Your task to perform on an android device: How much does a 2 bedroom apartment rent for in Boston? Image 0: 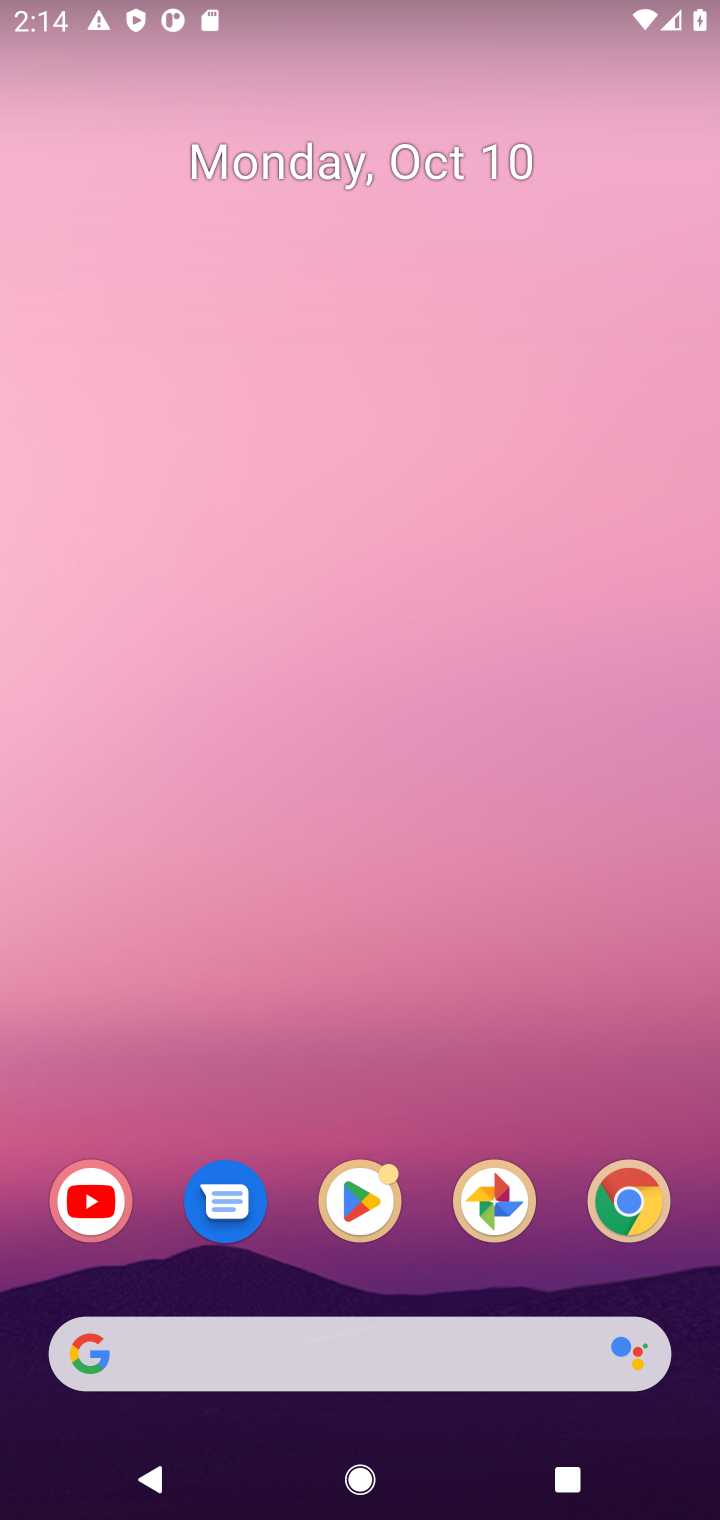
Step 0: click (356, 1325)
Your task to perform on an android device: How much does a 2 bedroom apartment rent for in Boston? Image 1: 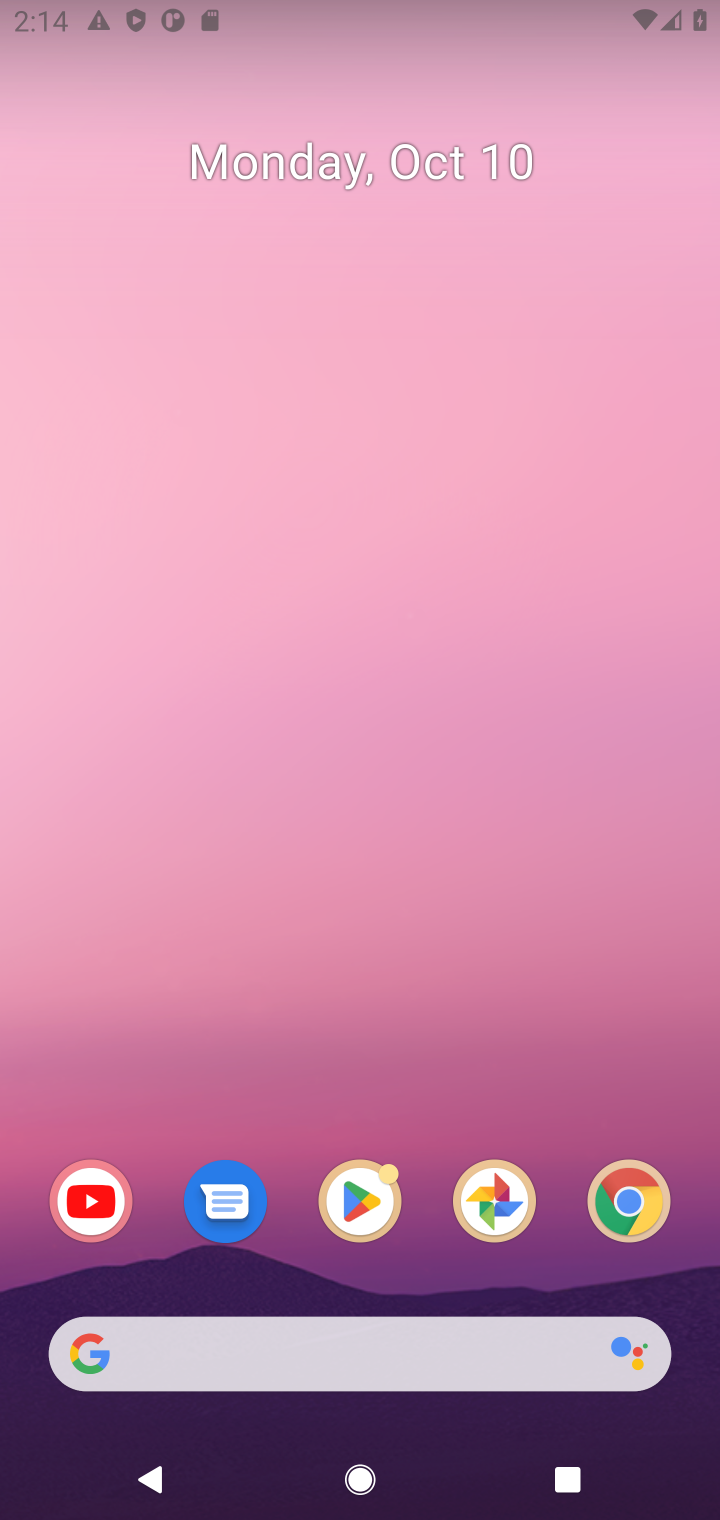
Step 1: click (337, 1356)
Your task to perform on an android device: How much does a 2 bedroom apartment rent for in Boston? Image 2: 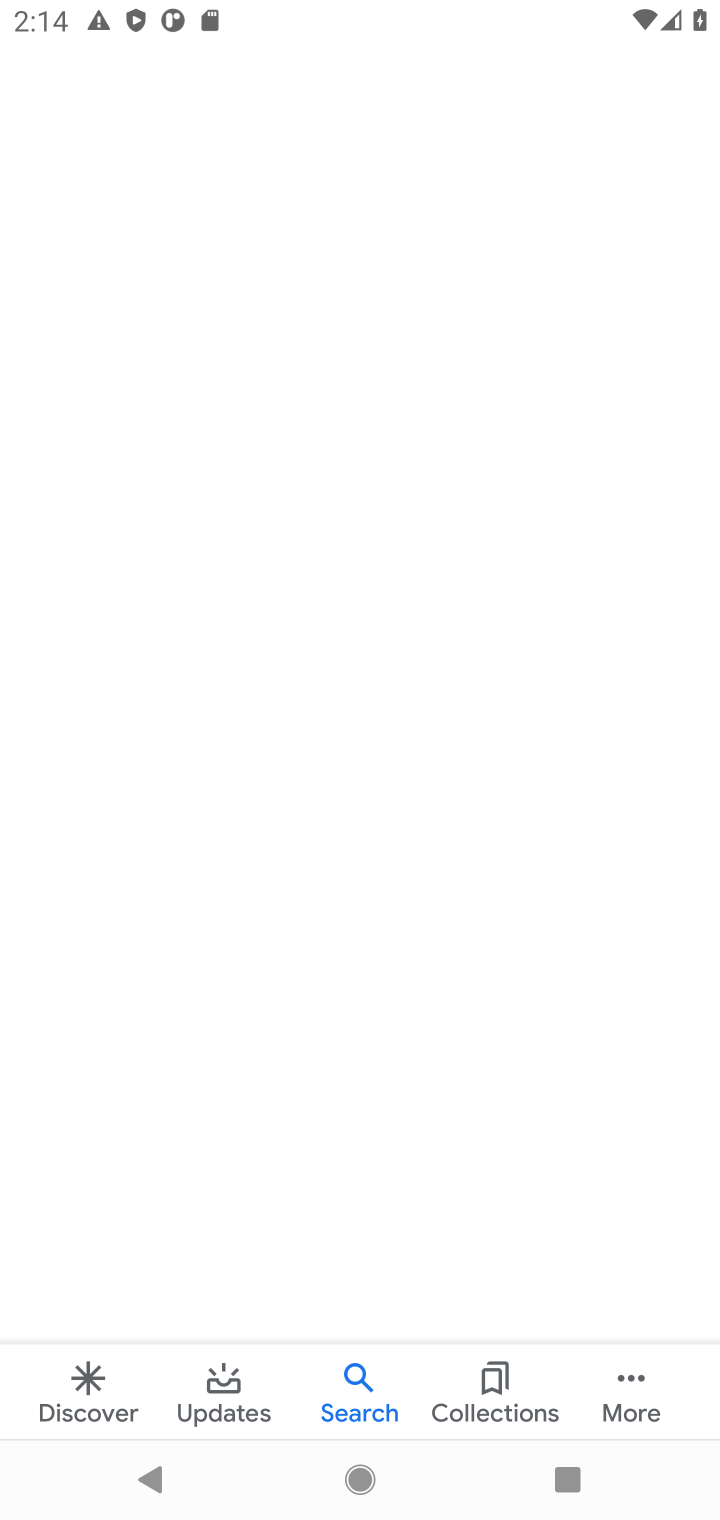
Step 2: type " bedroom apartment rent for in Boston?"
Your task to perform on an android device: How much does a 2 bedroom apartment rent for in Boston? Image 3: 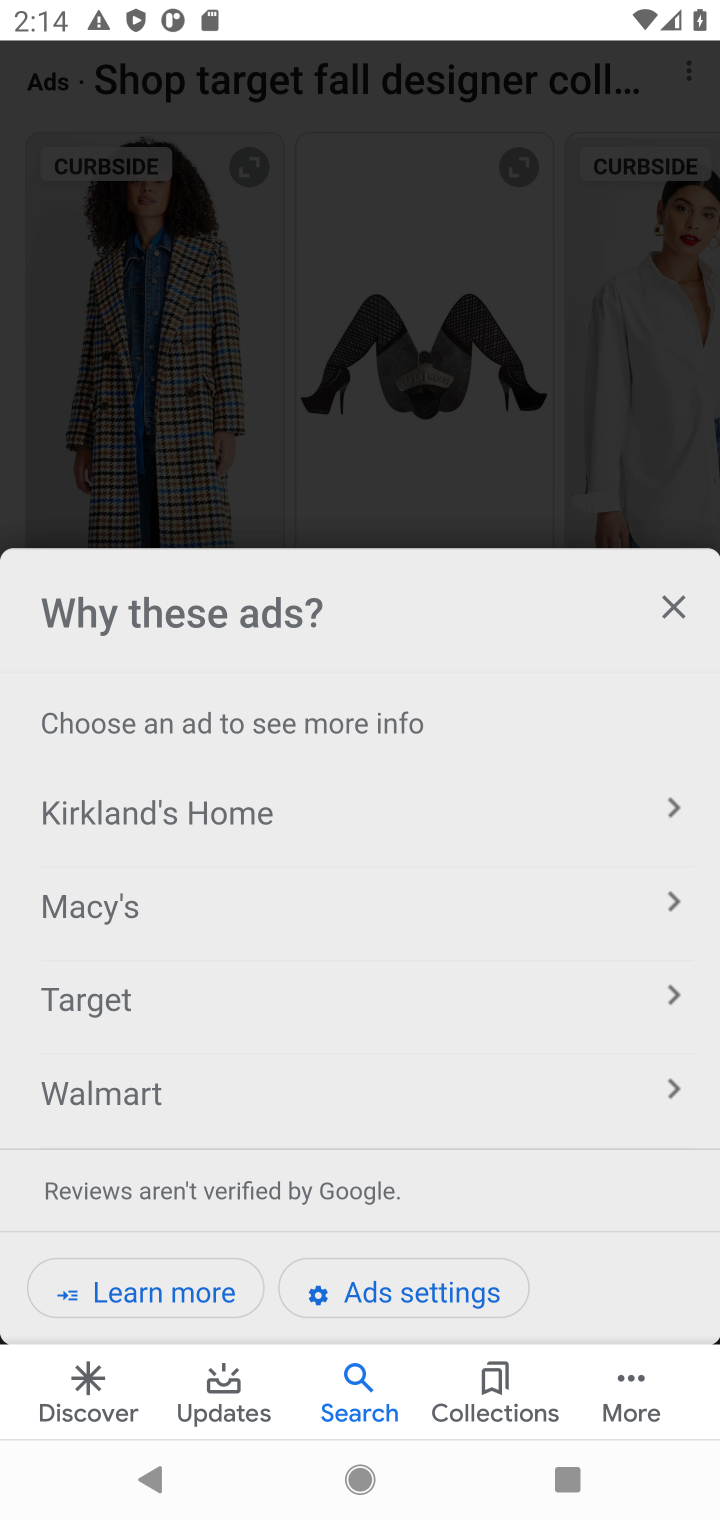
Step 3: press back button
Your task to perform on an android device: How much does a 2 bedroom apartment rent for in Boston? Image 4: 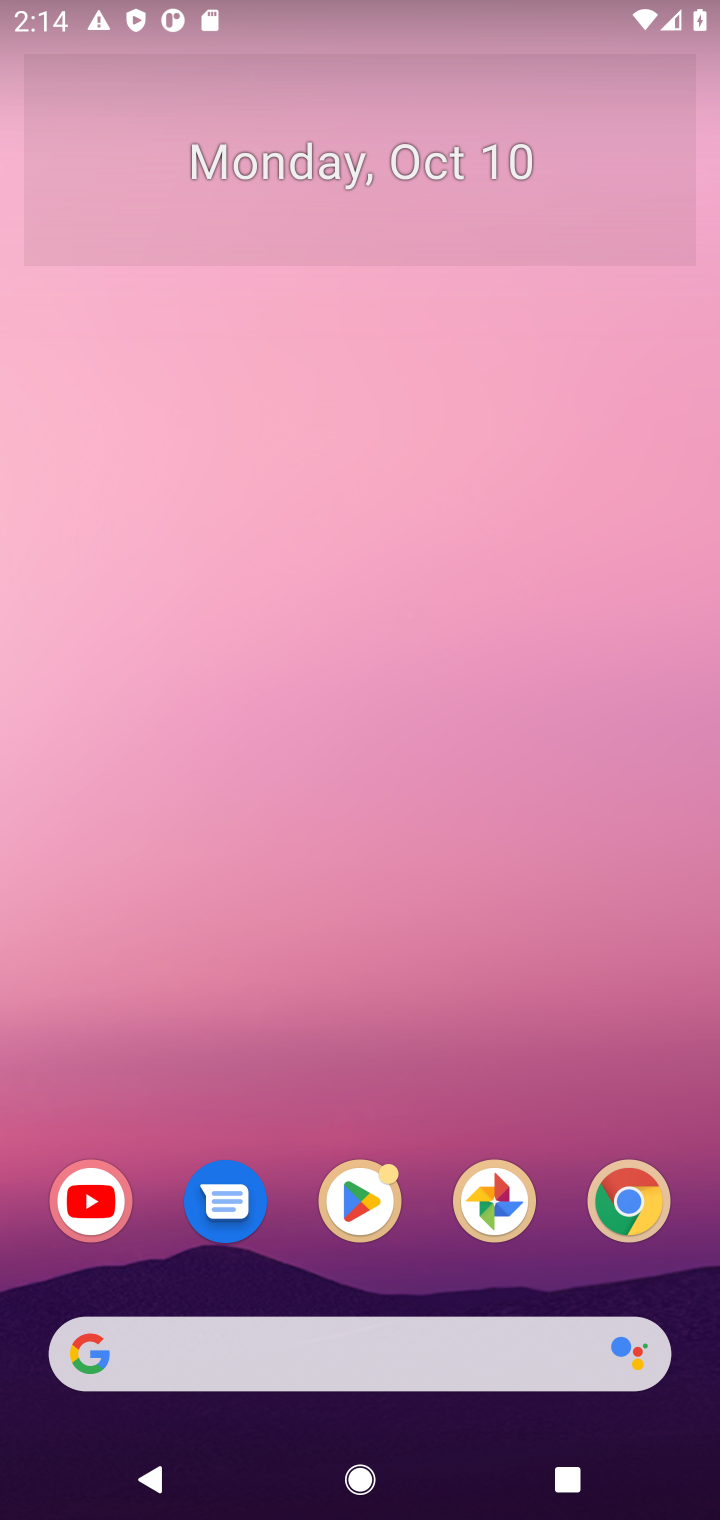
Step 4: click (217, 1348)
Your task to perform on an android device: How much does a 2 bedroom apartment rent for in Boston? Image 5: 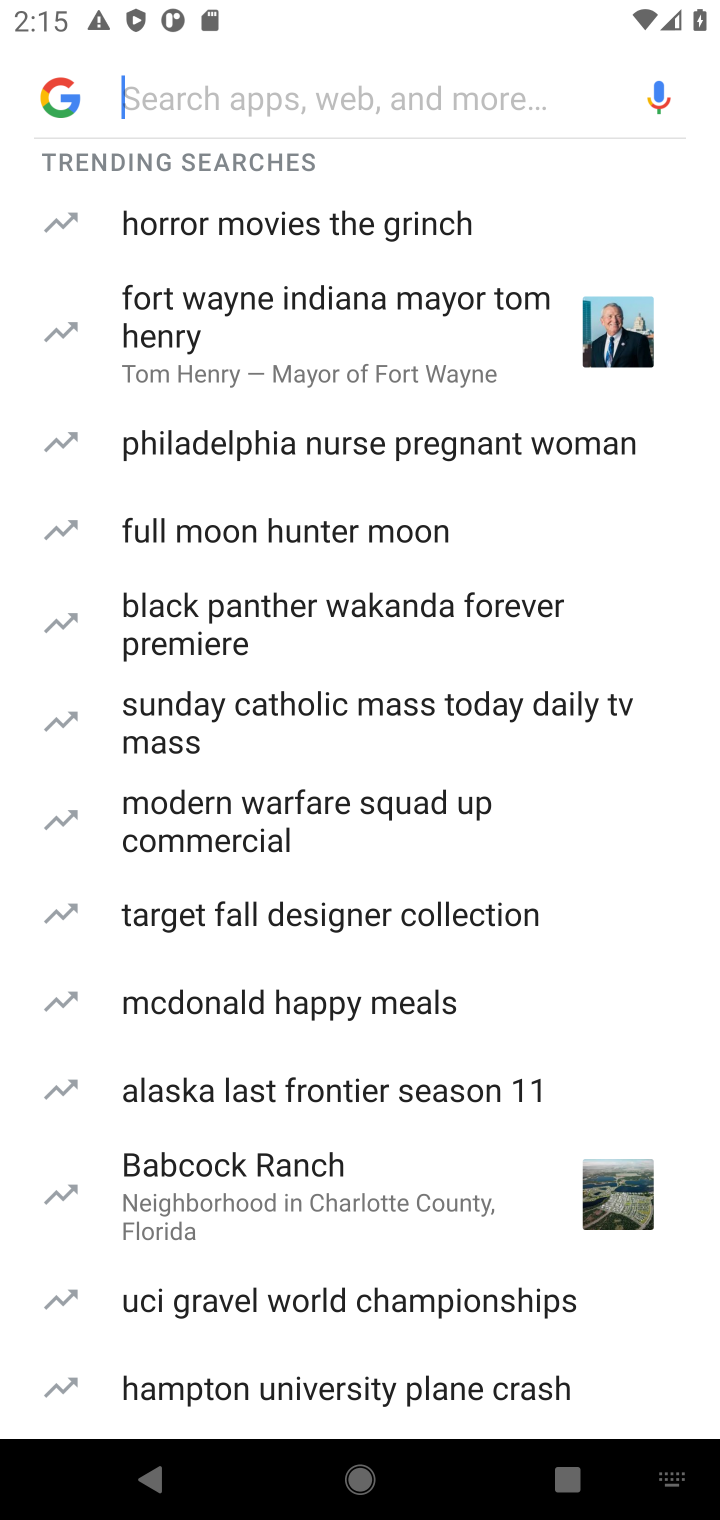
Step 5: type " bedroom apartment rent for in Boston?"
Your task to perform on an android device: How much does a 2 bedroom apartment rent for in Boston? Image 6: 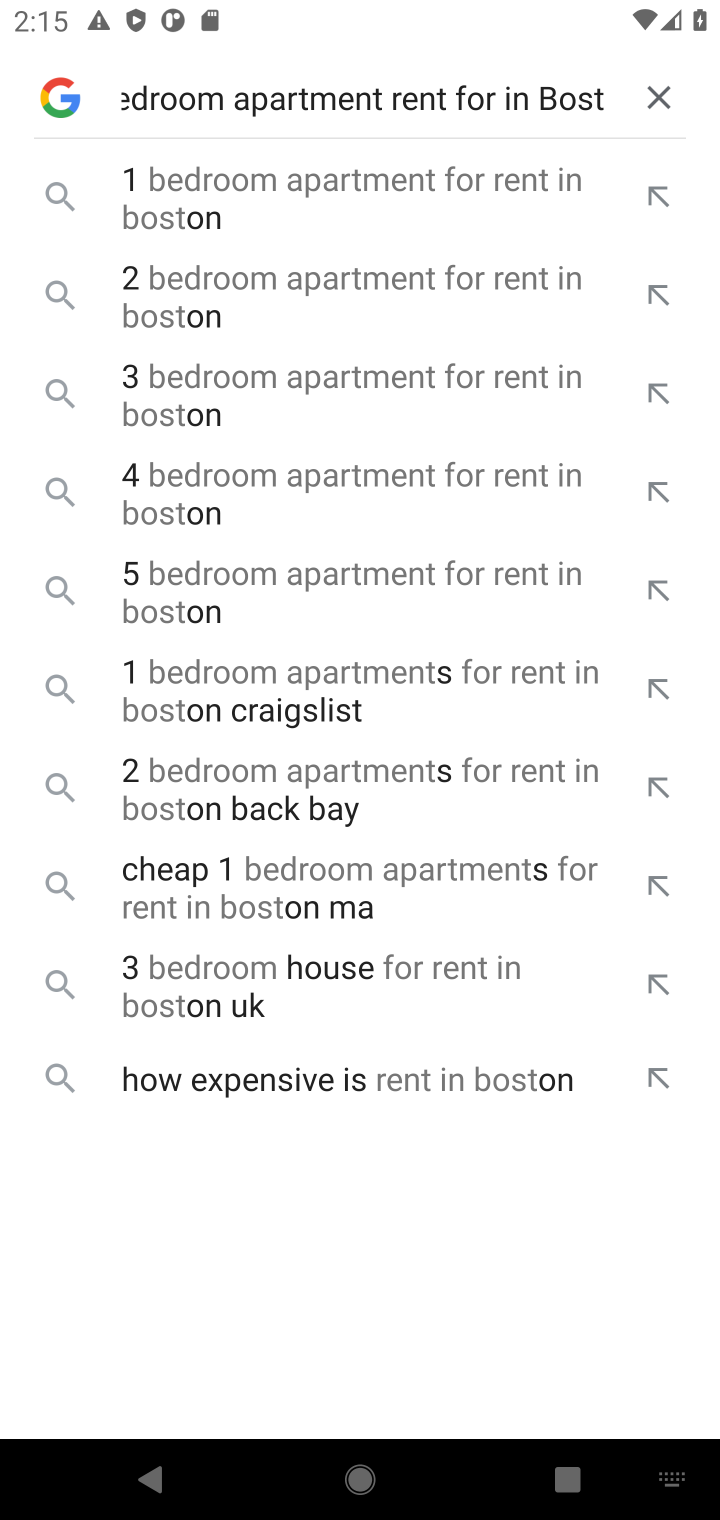
Step 6: type ""
Your task to perform on an android device: How much does a 2 bedroom apartment rent for in Boston? Image 7: 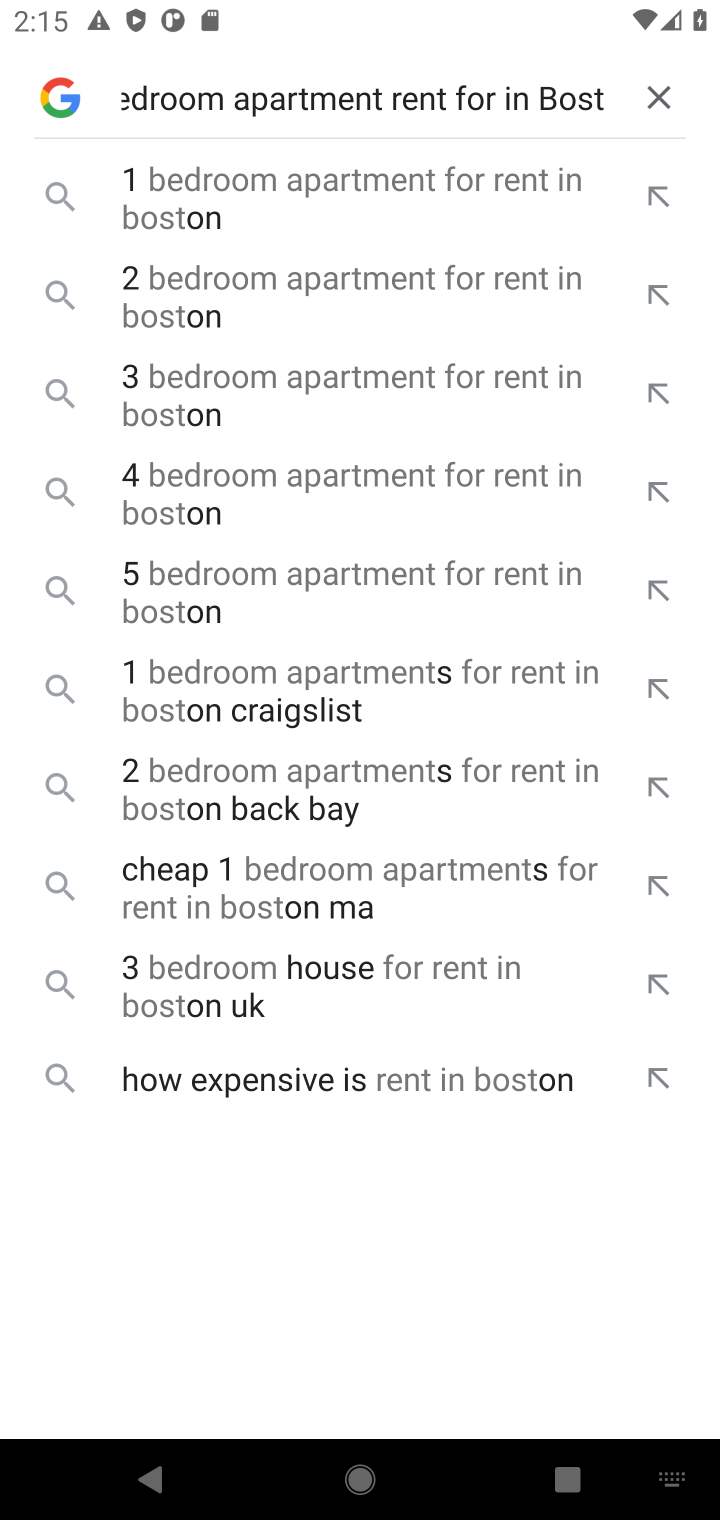
Step 7: press enter
Your task to perform on an android device: How much does a 2 bedroom apartment rent for in Boston? Image 8: 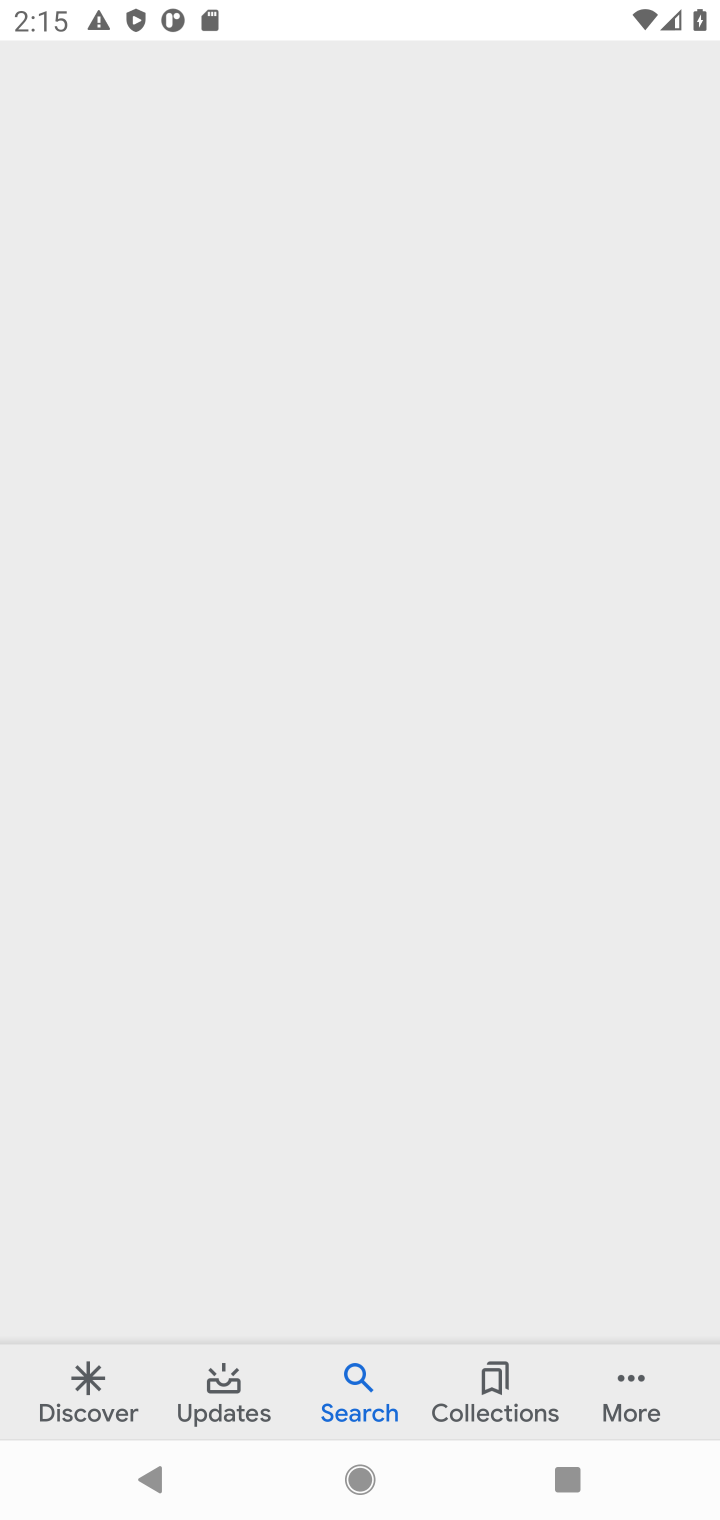
Step 8: click (174, 298)
Your task to perform on an android device: How much does a 2 bedroom apartment rent for in Boston? Image 9: 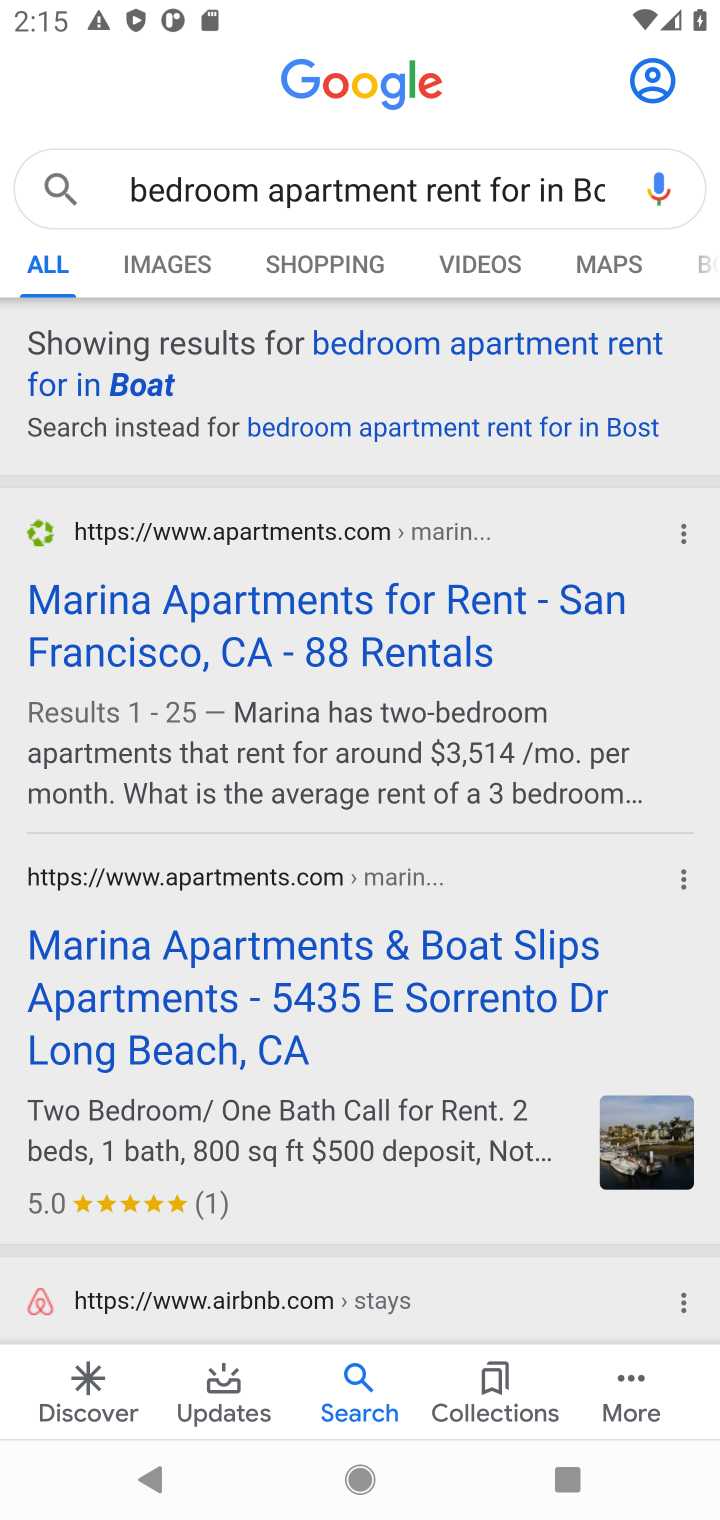
Step 9: click (242, 603)
Your task to perform on an android device: How much does a 2 bedroom apartment rent for in Boston? Image 10: 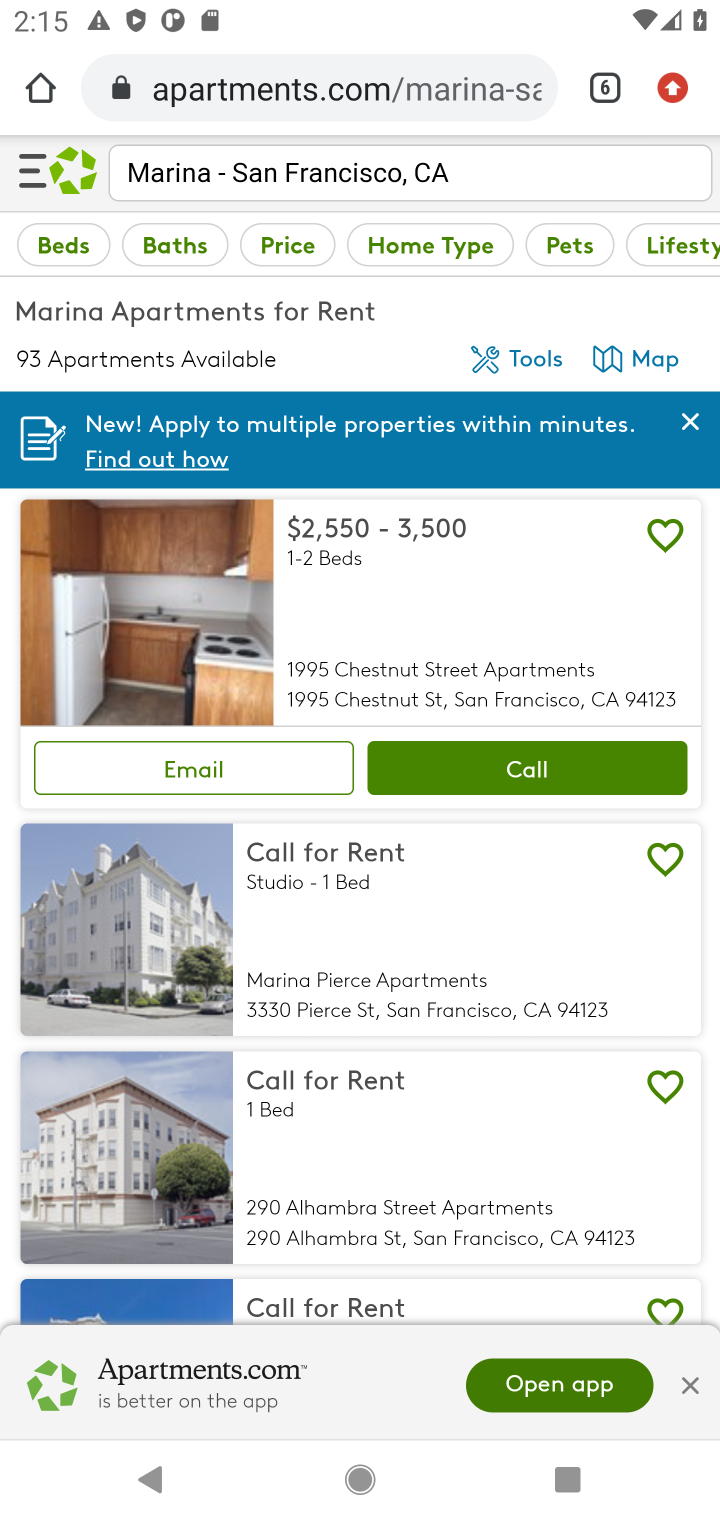
Step 10: task complete